Your task to perform on an android device: turn notification dots on Image 0: 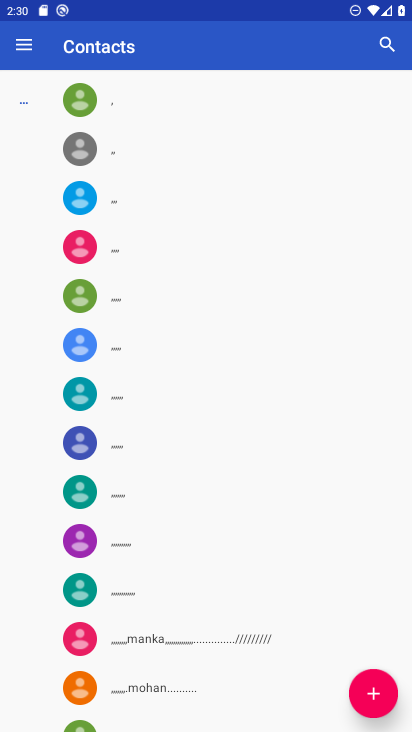
Step 0: press home button
Your task to perform on an android device: turn notification dots on Image 1: 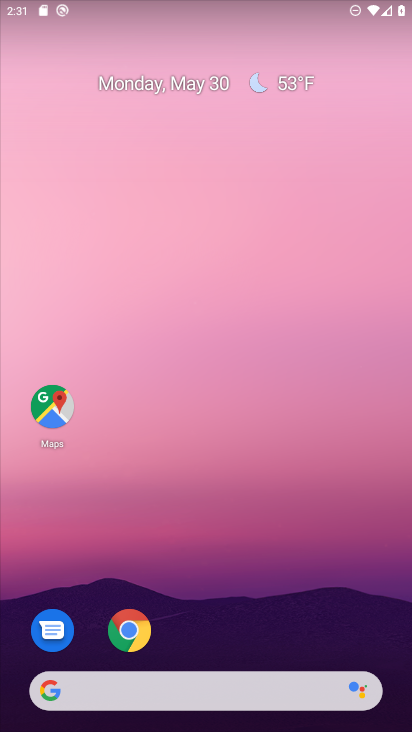
Step 1: drag from (199, 694) to (234, 42)
Your task to perform on an android device: turn notification dots on Image 2: 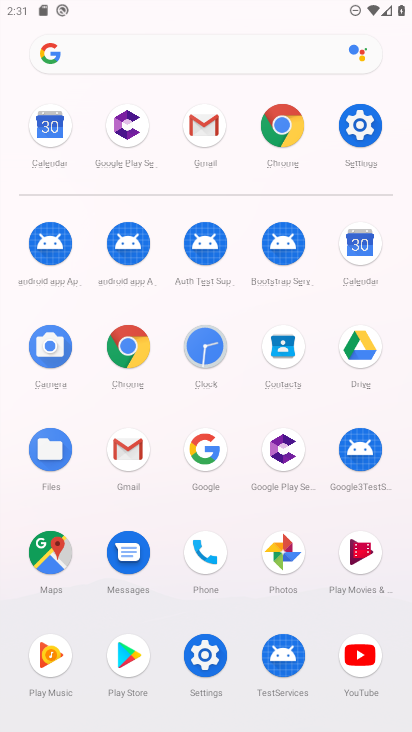
Step 2: click (353, 133)
Your task to perform on an android device: turn notification dots on Image 3: 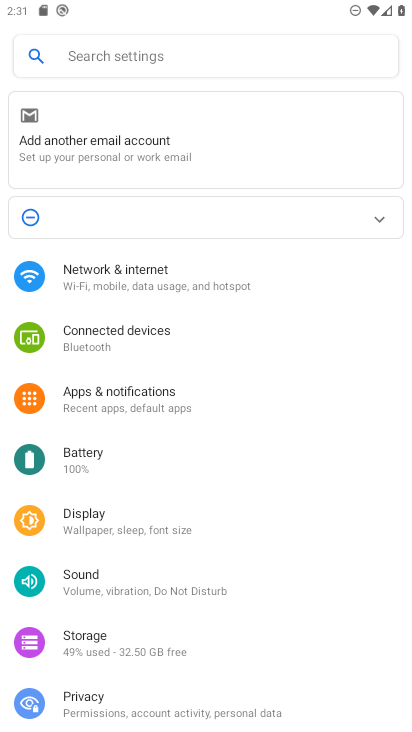
Step 3: click (129, 411)
Your task to perform on an android device: turn notification dots on Image 4: 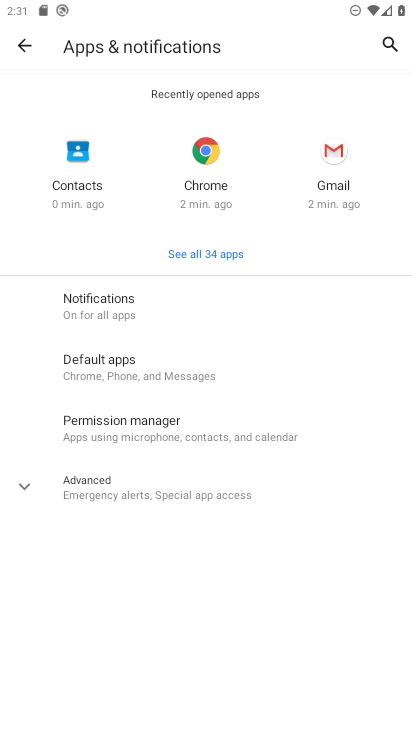
Step 4: click (113, 315)
Your task to perform on an android device: turn notification dots on Image 5: 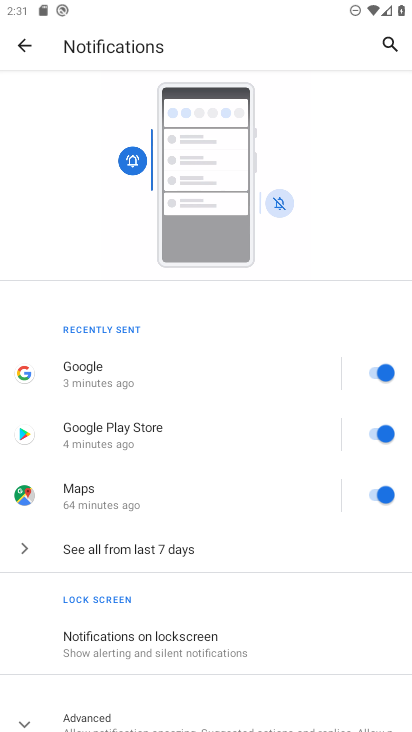
Step 5: drag from (193, 633) to (164, 93)
Your task to perform on an android device: turn notification dots on Image 6: 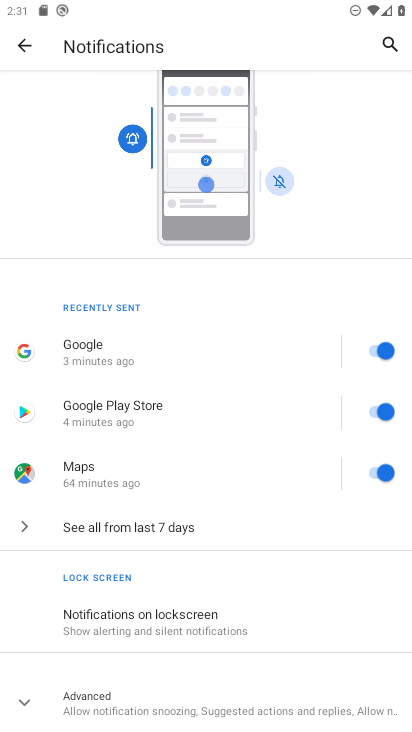
Step 6: click (168, 696)
Your task to perform on an android device: turn notification dots on Image 7: 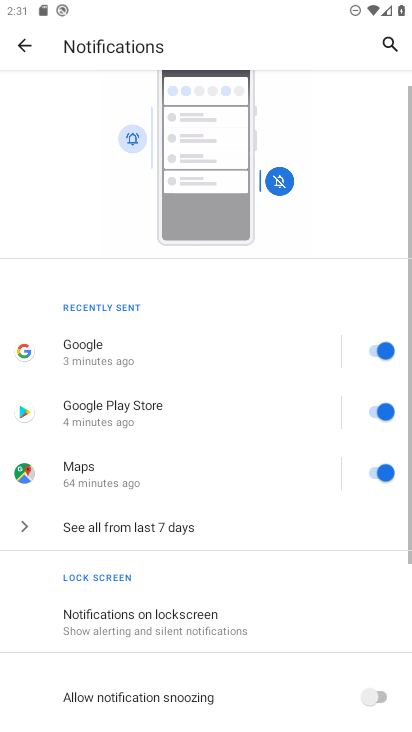
Step 7: task complete